Your task to perform on an android device: check out phone information Image 0: 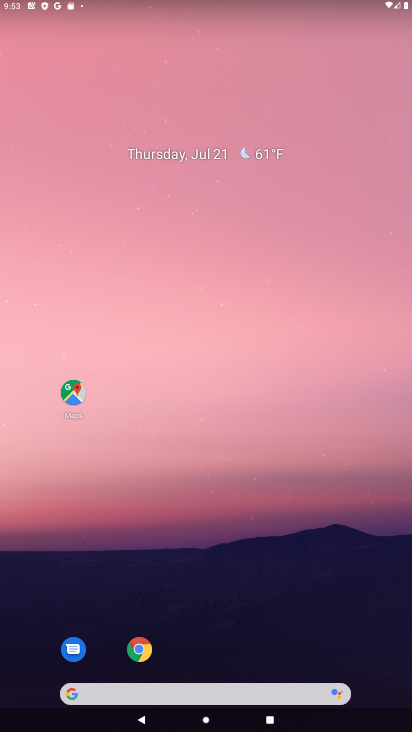
Step 0: drag from (261, 693) to (410, 151)
Your task to perform on an android device: check out phone information Image 1: 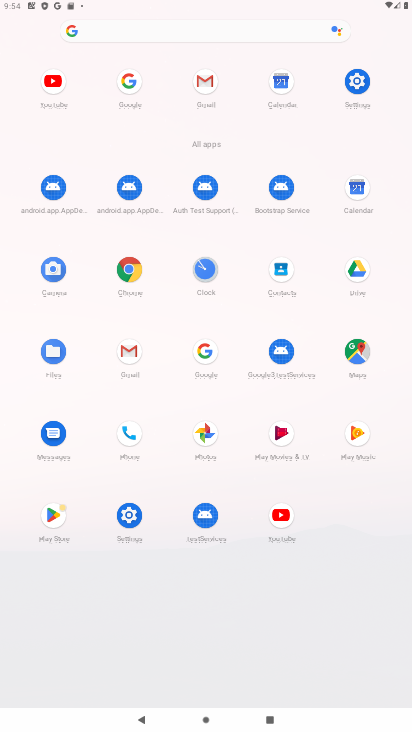
Step 1: click (357, 81)
Your task to perform on an android device: check out phone information Image 2: 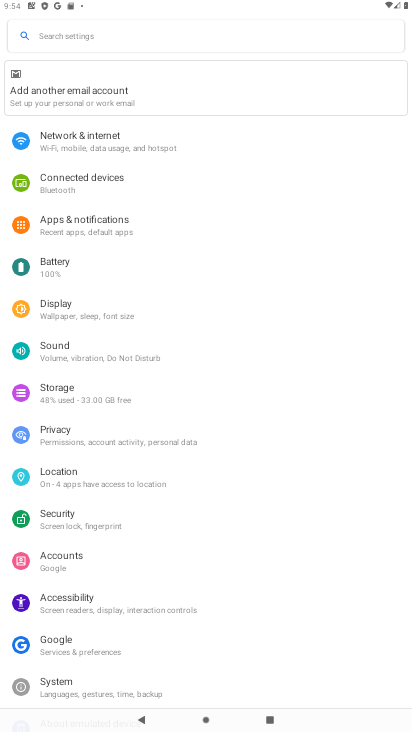
Step 2: drag from (214, 649) to (243, 504)
Your task to perform on an android device: check out phone information Image 3: 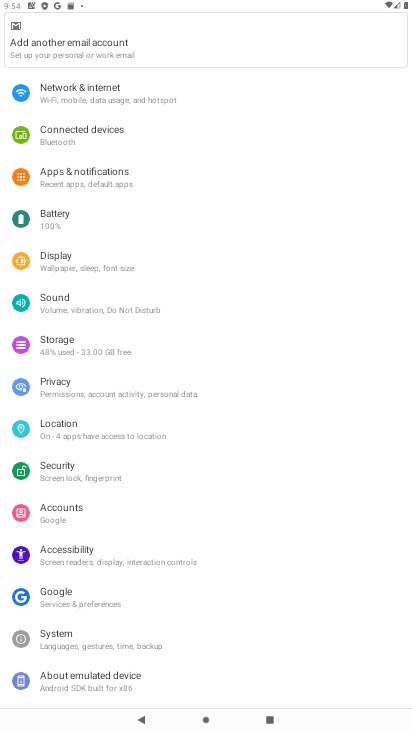
Step 3: drag from (137, 529) to (182, 459)
Your task to perform on an android device: check out phone information Image 4: 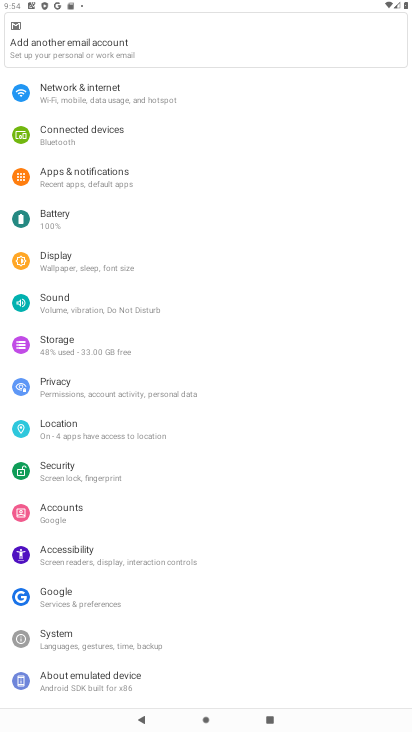
Step 4: click (125, 674)
Your task to perform on an android device: check out phone information Image 5: 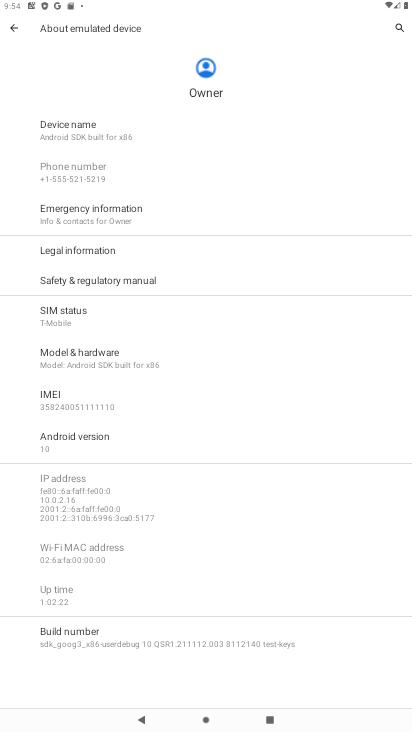
Step 5: task complete